Your task to perform on an android device: Open Google Maps Image 0: 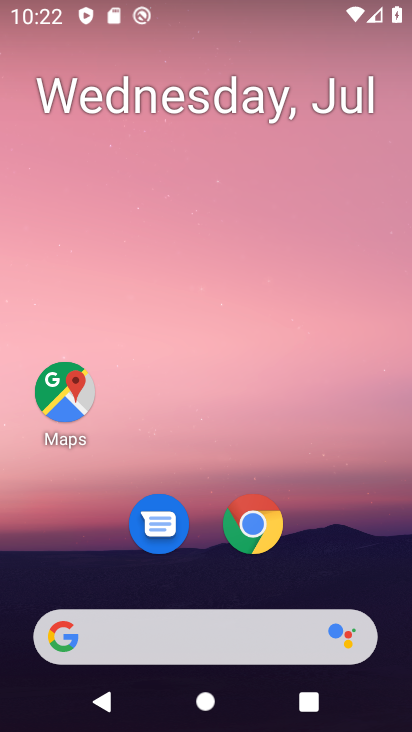
Step 0: press home button
Your task to perform on an android device: Open Google Maps Image 1: 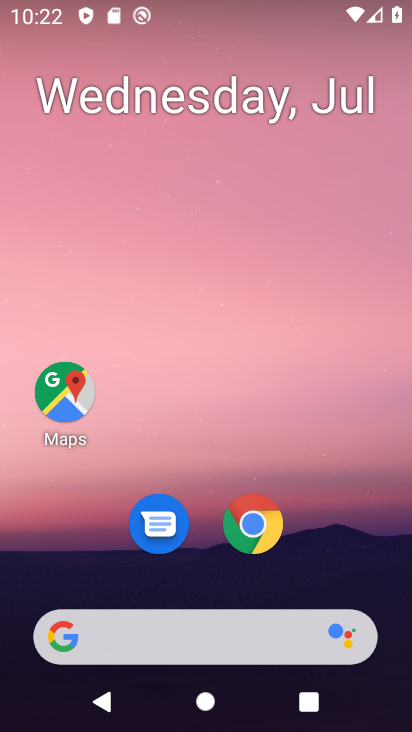
Step 1: click (71, 397)
Your task to perform on an android device: Open Google Maps Image 2: 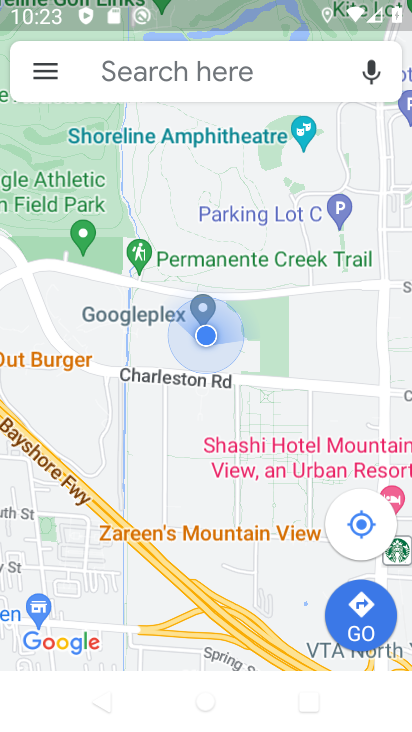
Step 2: task complete